Your task to perform on an android device: Go to calendar. Show me events next week Image 0: 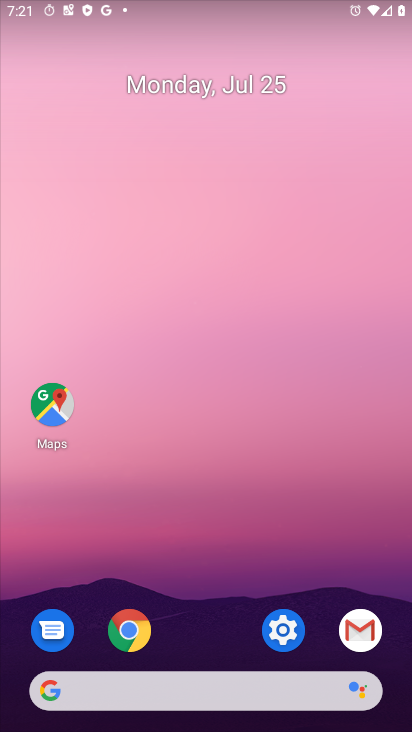
Step 0: drag from (317, 697) to (277, 88)
Your task to perform on an android device: Go to calendar. Show me events next week Image 1: 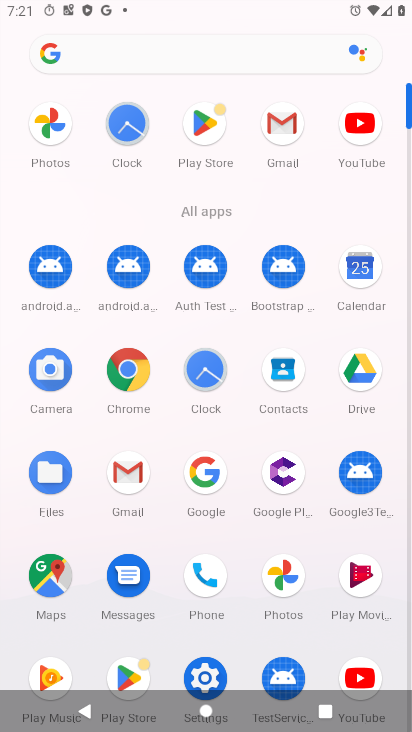
Step 1: click (372, 286)
Your task to perform on an android device: Go to calendar. Show me events next week Image 2: 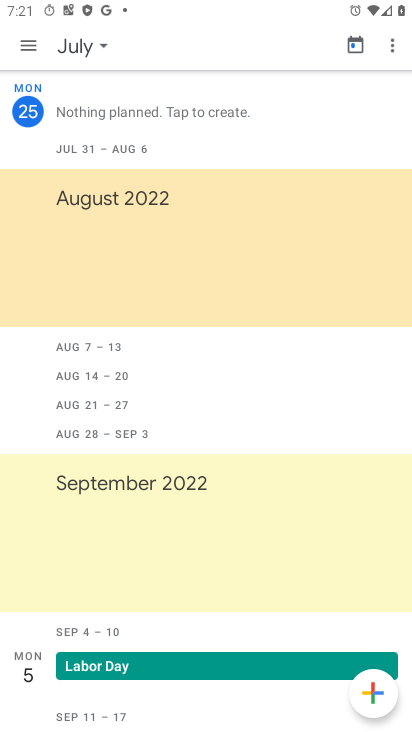
Step 2: click (33, 50)
Your task to perform on an android device: Go to calendar. Show me events next week Image 3: 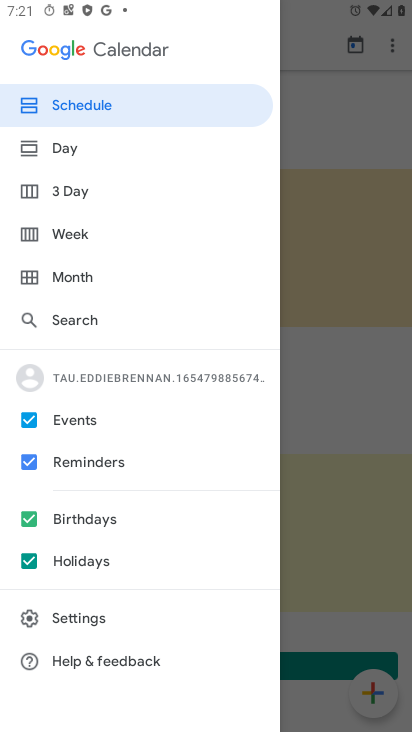
Step 3: click (82, 277)
Your task to perform on an android device: Go to calendar. Show me events next week Image 4: 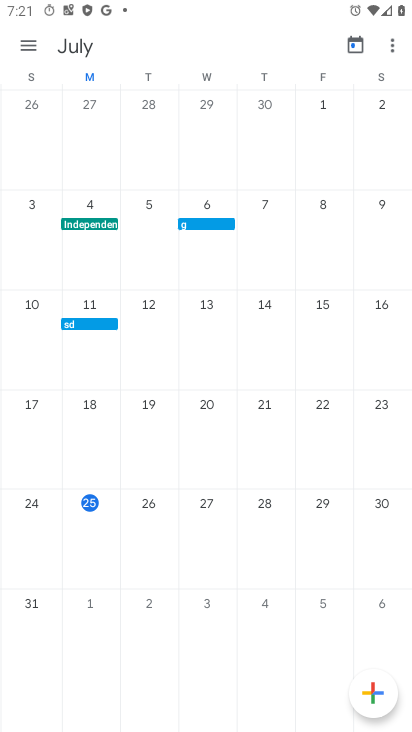
Step 4: click (85, 607)
Your task to perform on an android device: Go to calendar. Show me events next week Image 5: 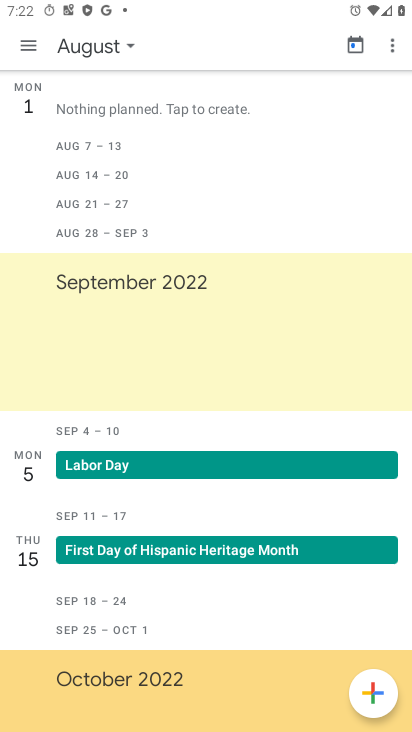
Step 5: task complete